Your task to perform on an android device: Open the stopwatch Image 0: 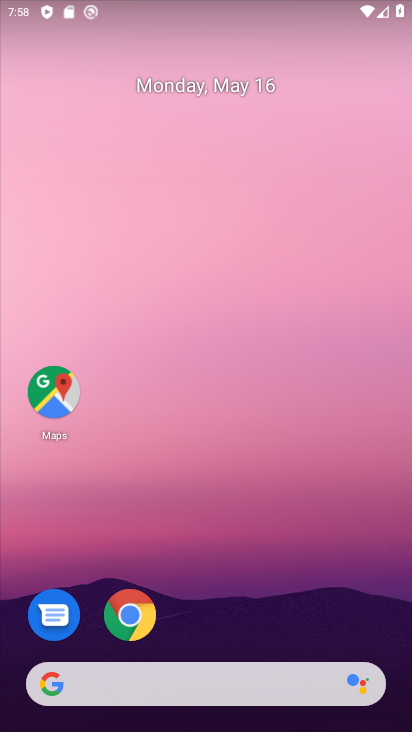
Step 0: drag from (229, 661) to (266, 207)
Your task to perform on an android device: Open the stopwatch Image 1: 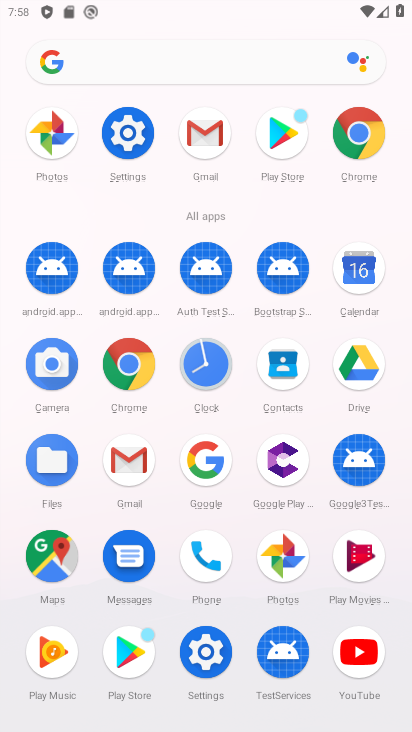
Step 1: click (201, 380)
Your task to perform on an android device: Open the stopwatch Image 2: 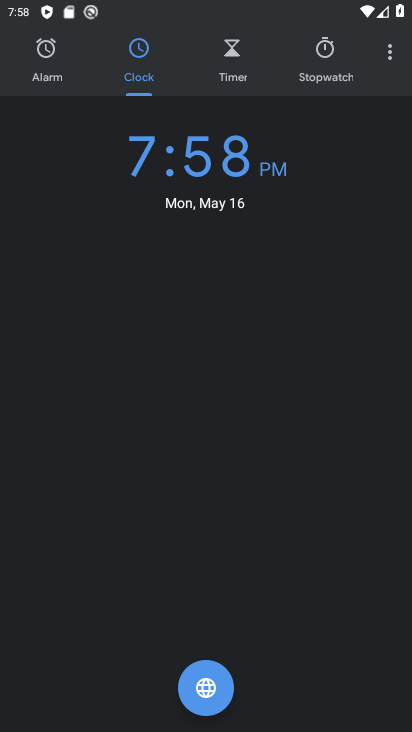
Step 2: click (328, 74)
Your task to perform on an android device: Open the stopwatch Image 3: 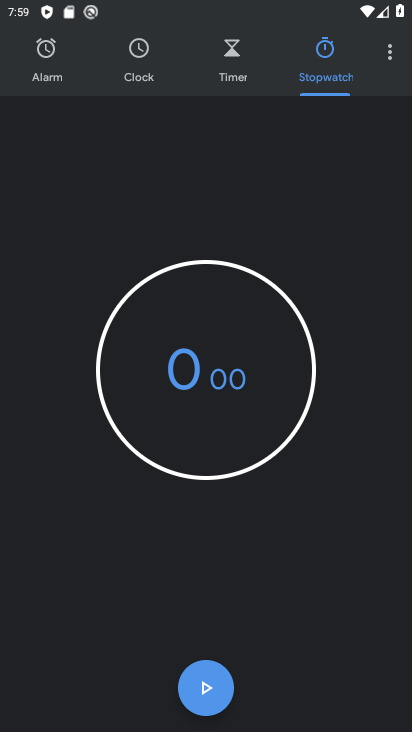
Step 3: task complete